Your task to perform on an android device: What's the weather today? Image 0: 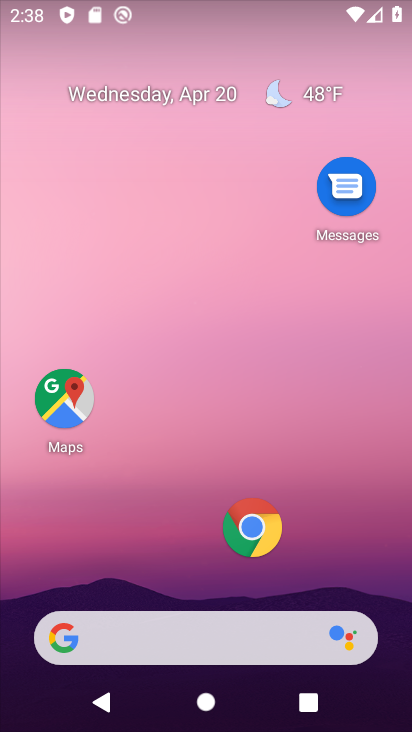
Step 0: drag from (188, 392) to (282, 34)
Your task to perform on an android device: What's the weather today? Image 1: 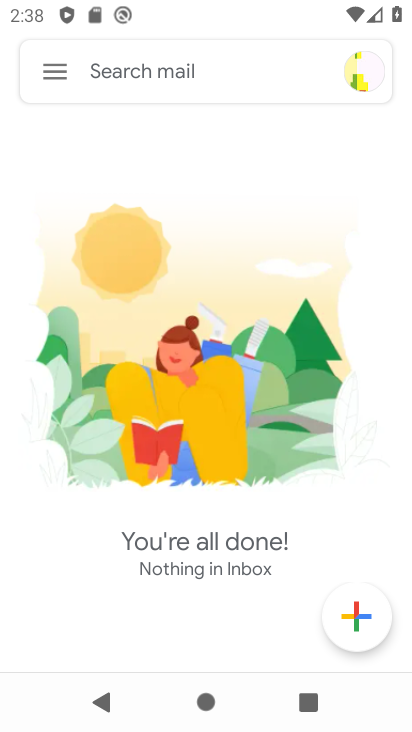
Step 1: press home button
Your task to perform on an android device: What's the weather today? Image 2: 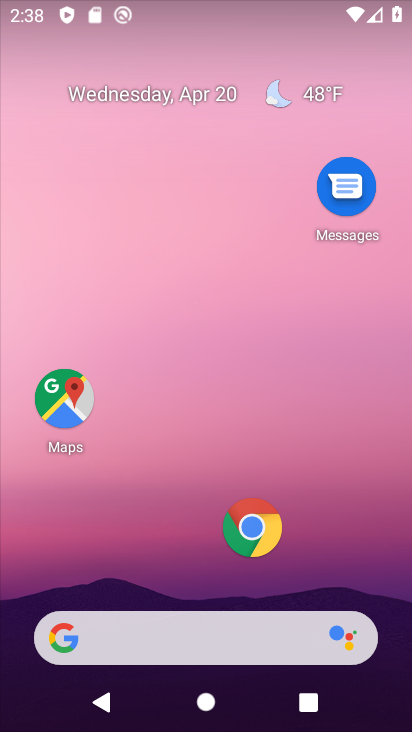
Step 2: click (319, 91)
Your task to perform on an android device: What's the weather today? Image 3: 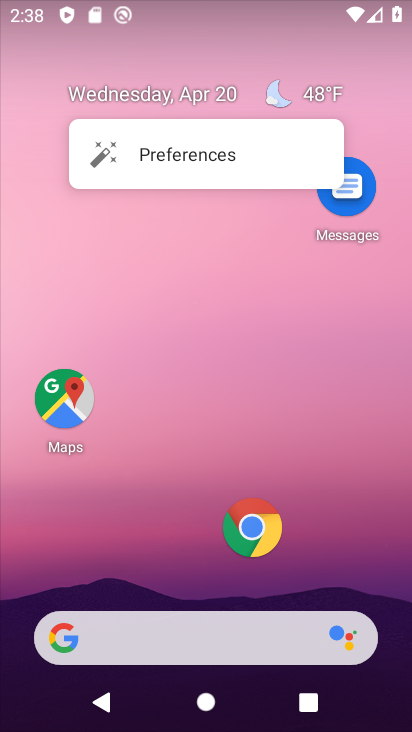
Step 3: click (309, 94)
Your task to perform on an android device: What's the weather today? Image 4: 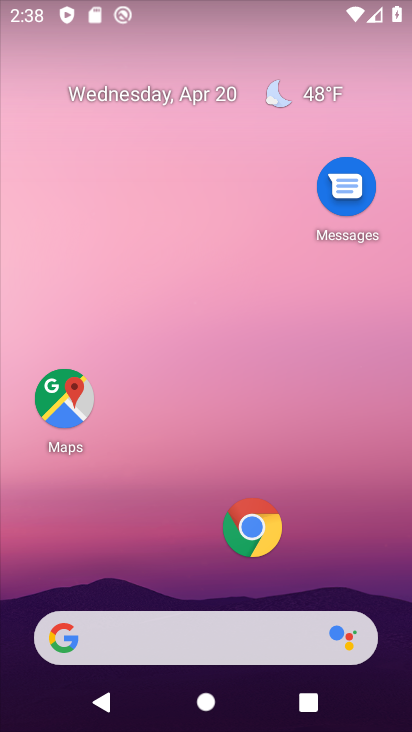
Step 4: click (313, 92)
Your task to perform on an android device: What's the weather today? Image 5: 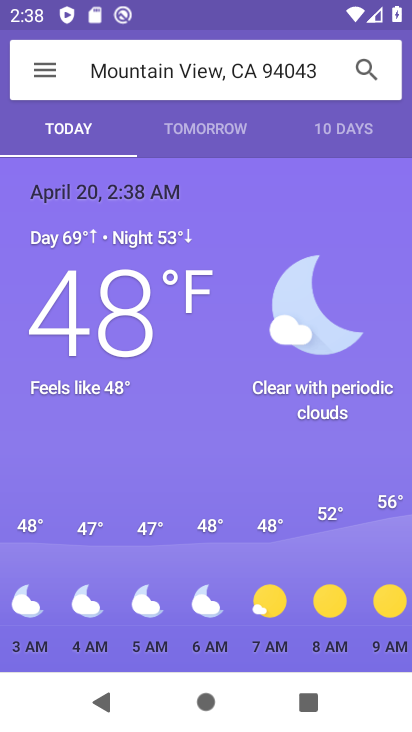
Step 5: task complete